Your task to perform on an android device: Open the phone app and click the voicemail tab. Image 0: 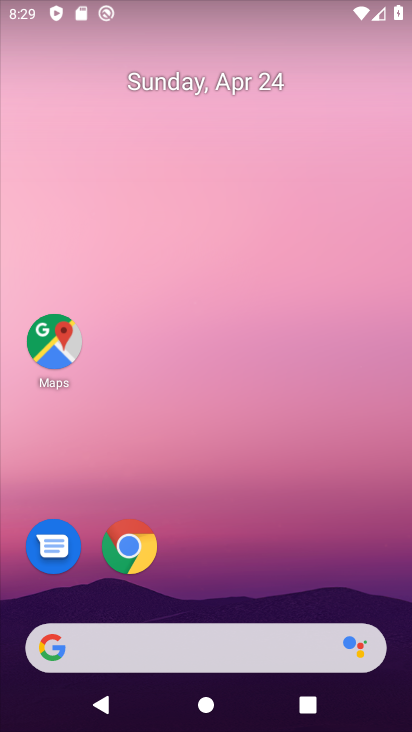
Step 0: drag from (228, 619) to (285, 134)
Your task to perform on an android device: Open the phone app and click the voicemail tab. Image 1: 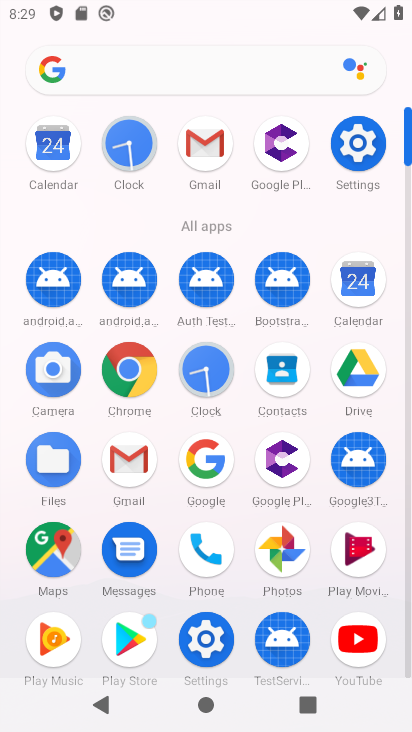
Step 1: click (198, 550)
Your task to perform on an android device: Open the phone app and click the voicemail tab. Image 2: 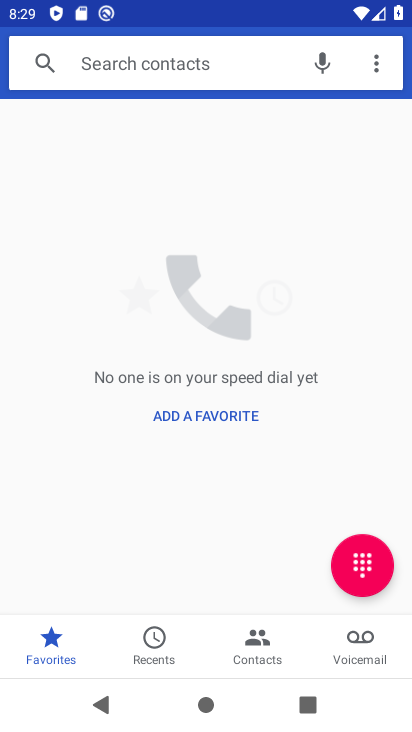
Step 2: click (384, 630)
Your task to perform on an android device: Open the phone app and click the voicemail tab. Image 3: 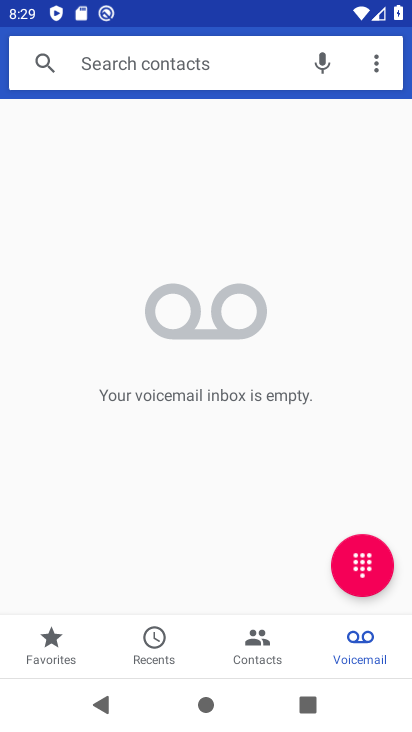
Step 3: task complete